Your task to perform on an android device: Open Google Maps Image 0: 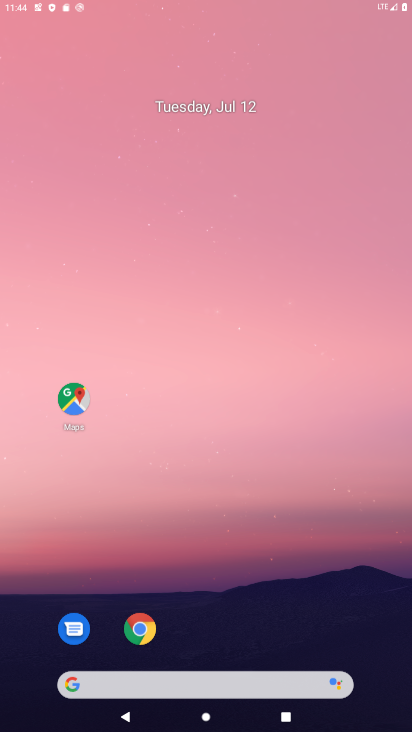
Step 0: press home button
Your task to perform on an android device: Open Google Maps Image 1: 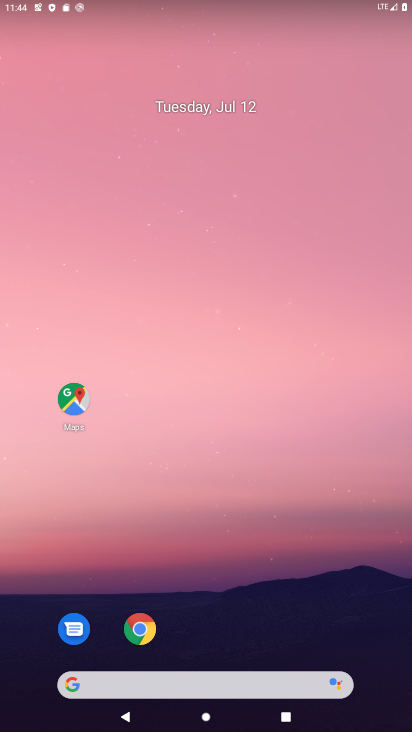
Step 1: click (73, 397)
Your task to perform on an android device: Open Google Maps Image 2: 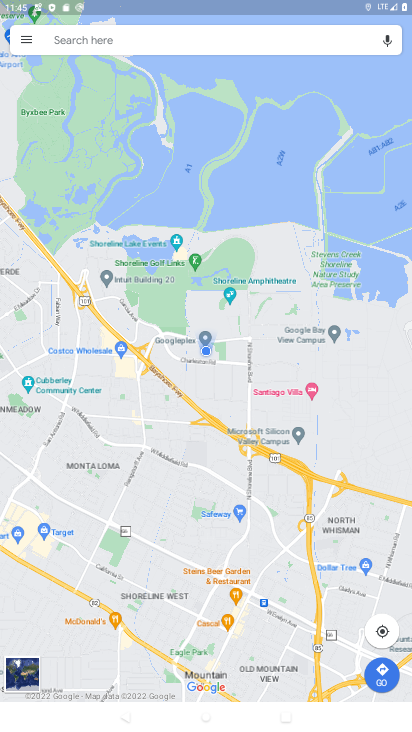
Step 2: task complete